Your task to perform on an android device: change timer sound Image 0: 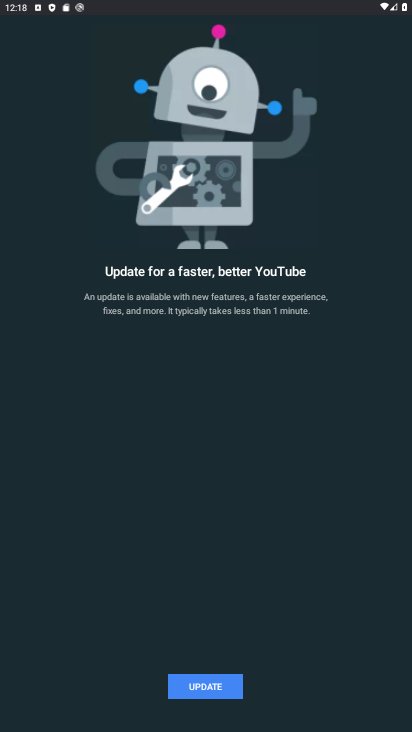
Step 0: press home button
Your task to perform on an android device: change timer sound Image 1: 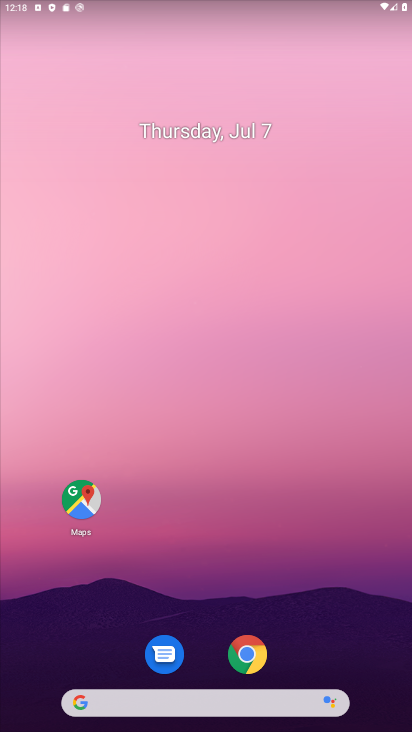
Step 1: drag from (198, 649) to (178, 134)
Your task to perform on an android device: change timer sound Image 2: 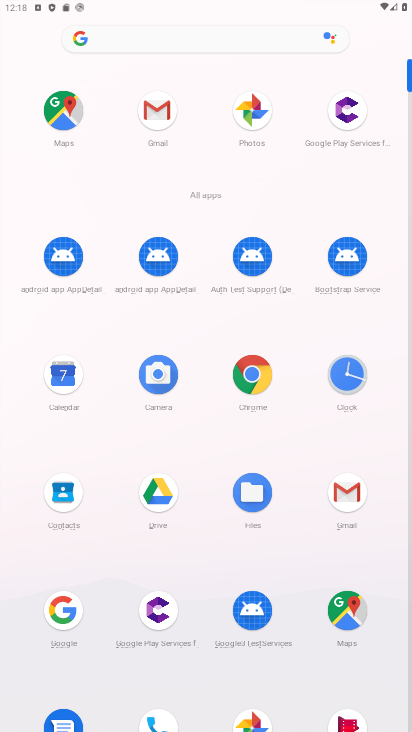
Step 2: click (347, 366)
Your task to perform on an android device: change timer sound Image 3: 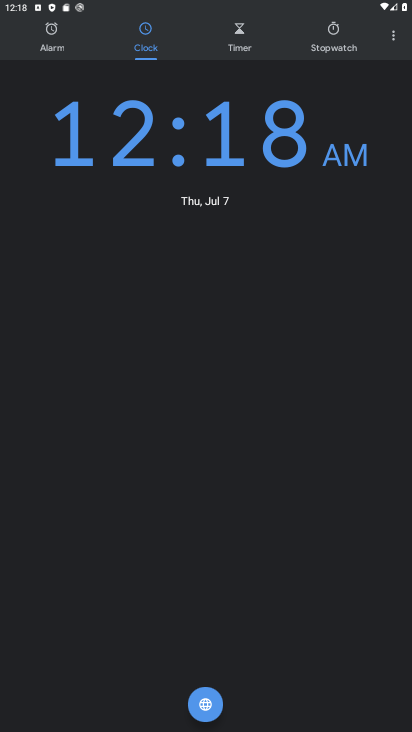
Step 3: click (394, 36)
Your task to perform on an android device: change timer sound Image 4: 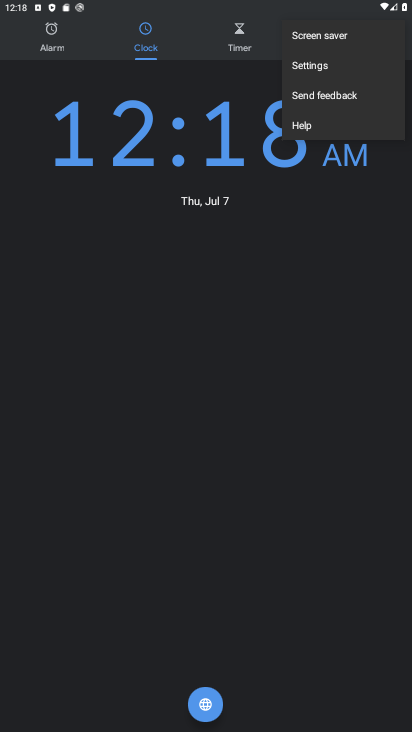
Step 4: click (315, 62)
Your task to perform on an android device: change timer sound Image 5: 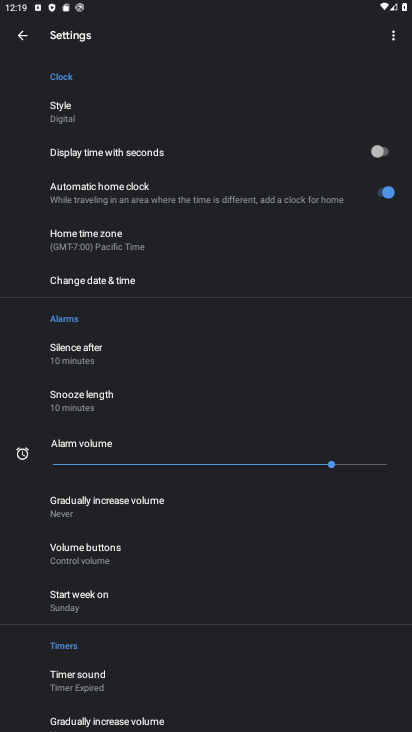
Step 5: click (143, 681)
Your task to perform on an android device: change timer sound Image 6: 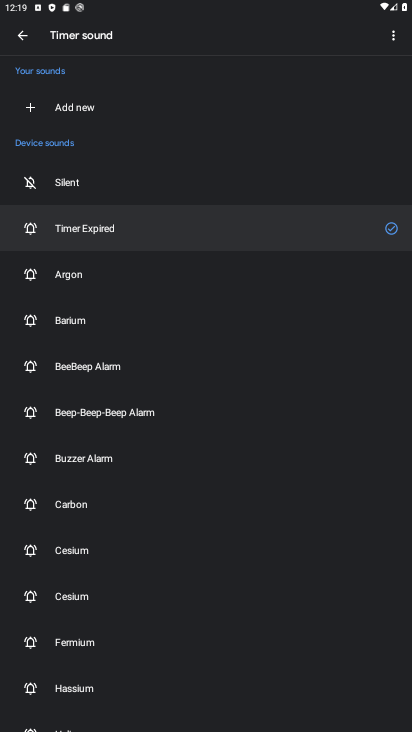
Step 6: click (156, 418)
Your task to perform on an android device: change timer sound Image 7: 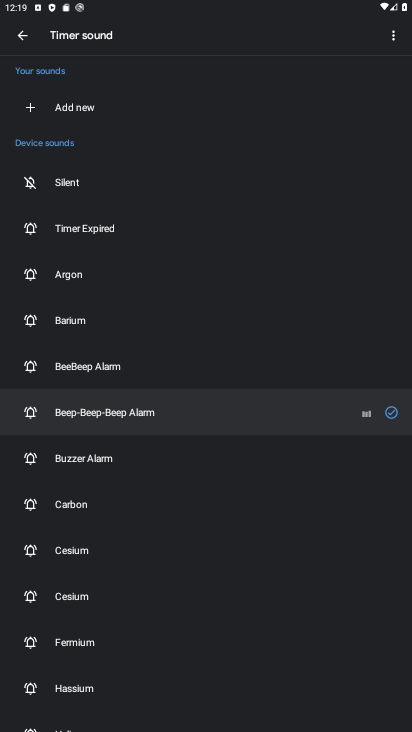
Step 7: task complete